Your task to perform on an android device: turn smart compose on in the gmail app Image 0: 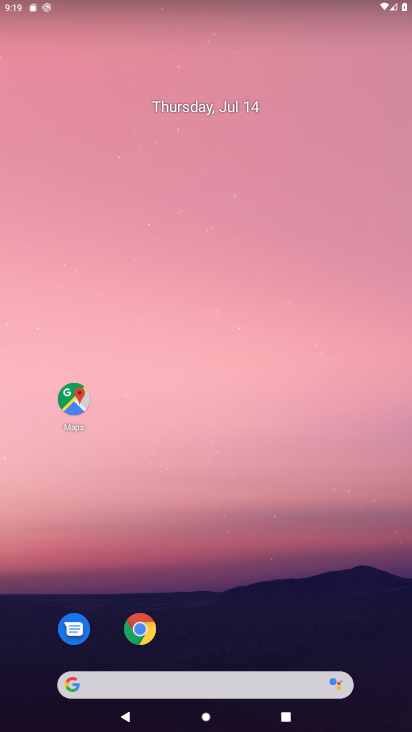
Step 0: drag from (249, 586) to (241, 33)
Your task to perform on an android device: turn smart compose on in the gmail app Image 1: 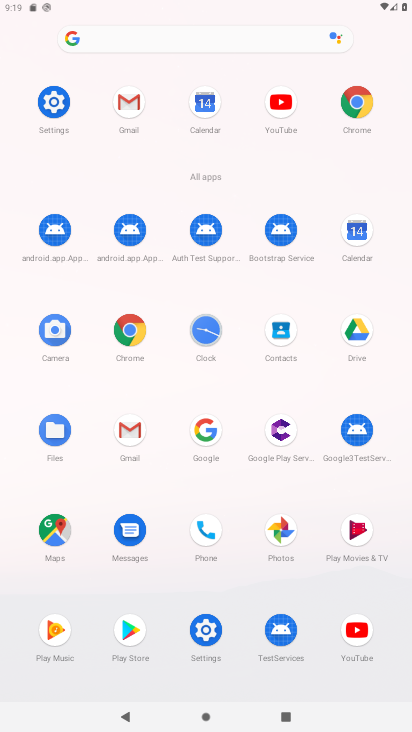
Step 1: click (131, 425)
Your task to perform on an android device: turn smart compose on in the gmail app Image 2: 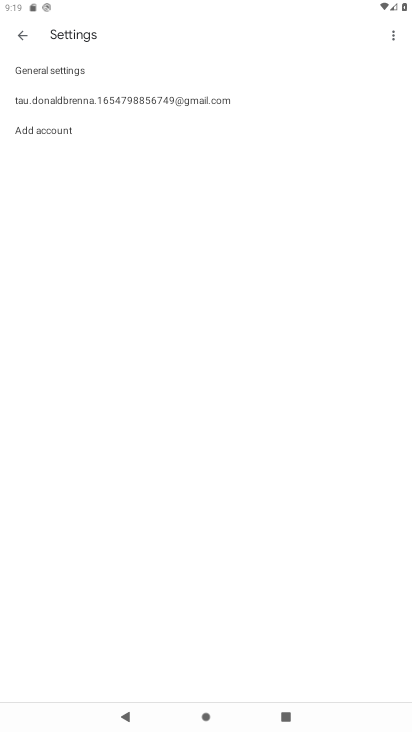
Step 2: click (154, 98)
Your task to perform on an android device: turn smart compose on in the gmail app Image 3: 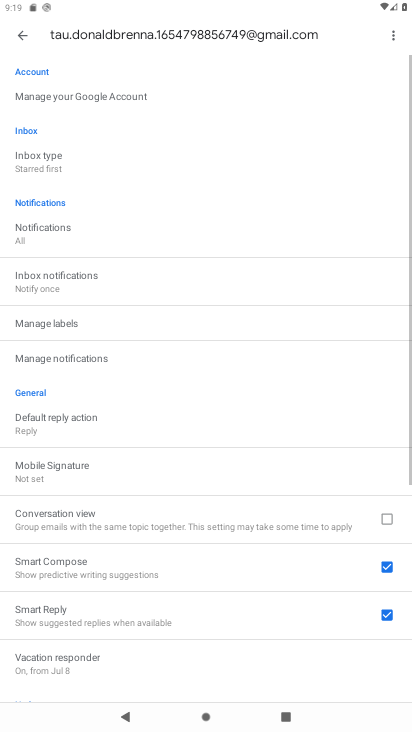
Step 3: task complete